Your task to perform on an android device: check the backup settings in the google photos Image 0: 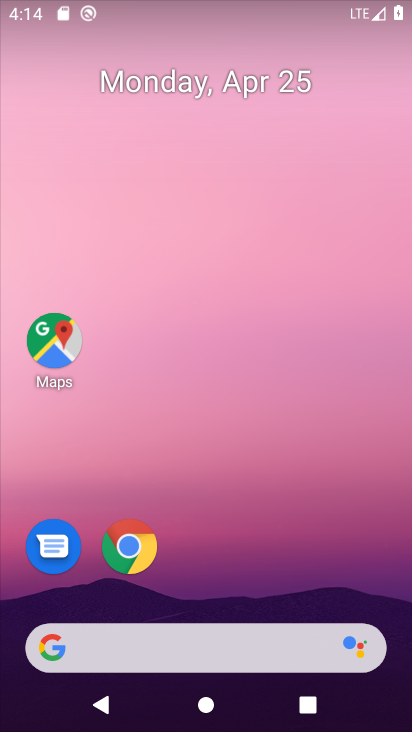
Step 0: drag from (309, 578) to (342, 69)
Your task to perform on an android device: check the backup settings in the google photos Image 1: 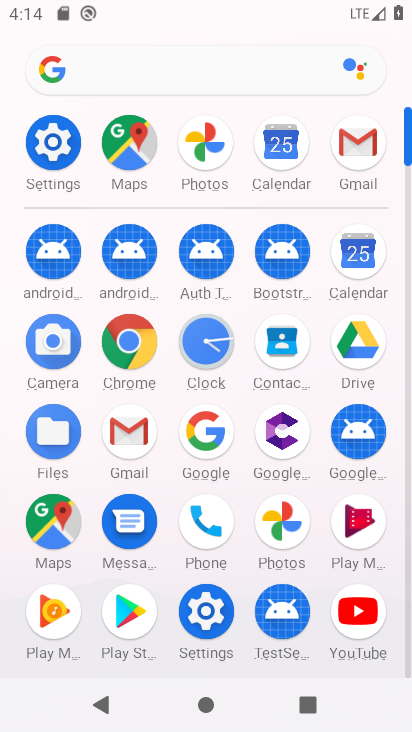
Step 1: click (282, 533)
Your task to perform on an android device: check the backup settings in the google photos Image 2: 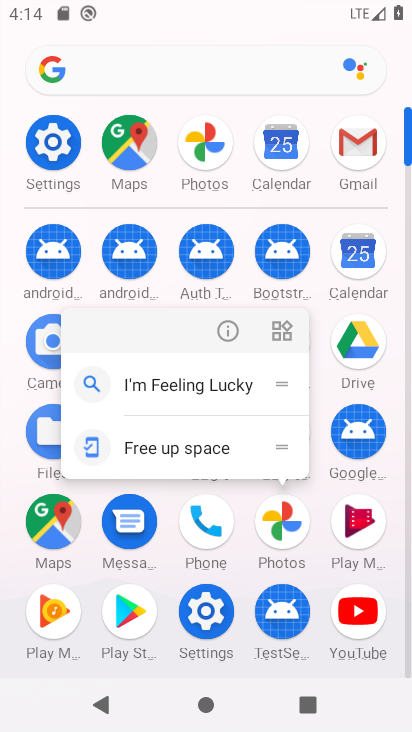
Step 2: click (283, 533)
Your task to perform on an android device: check the backup settings in the google photos Image 3: 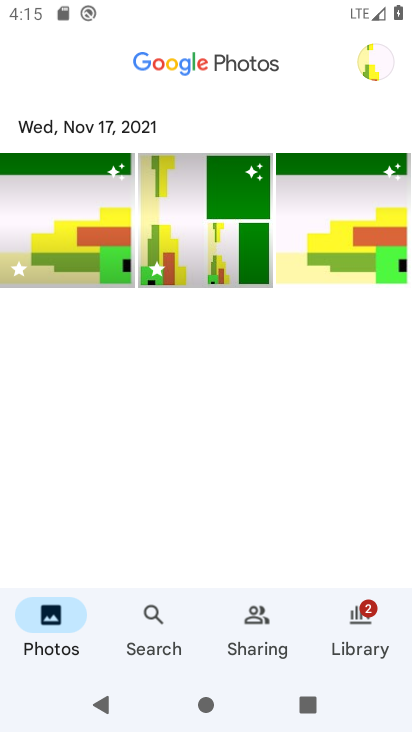
Step 3: click (389, 61)
Your task to perform on an android device: check the backup settings in the google photos Image 4: 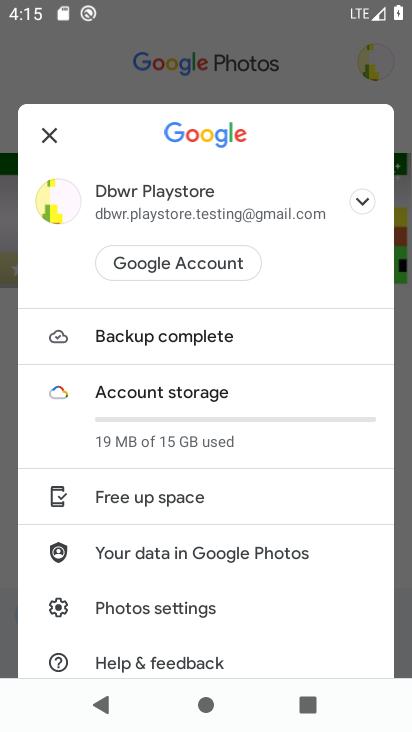
Step 4: click (156, 620)
Your task to perform on an android device: check the backup settings in the google photos Image 5: 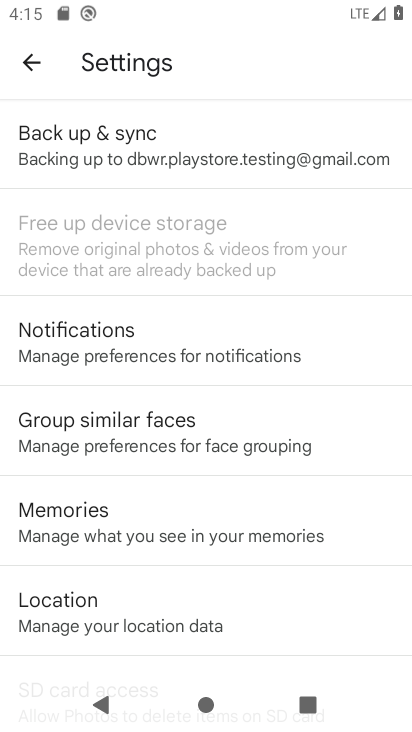
Step 5: click (206, 160)
Your task to perform on an android device: check the backup settings in the google photos Image 6: 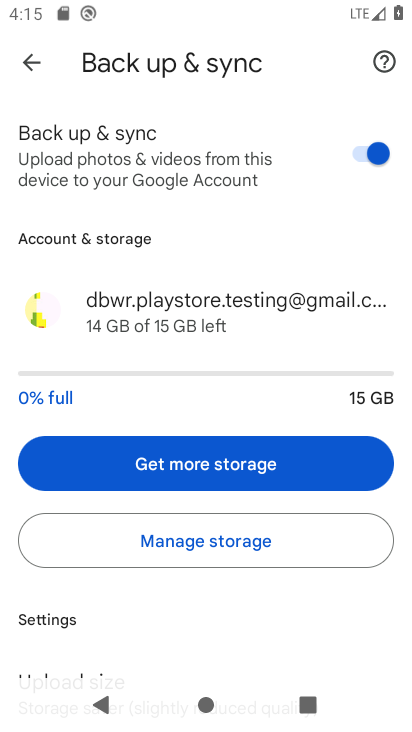
Step 6: task complete